Your task to perform on an android device: Go to Reddit.com Image 0: 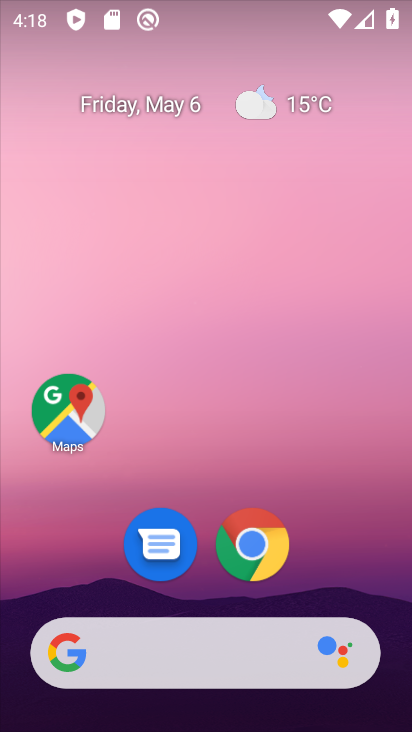
Step 0: drag from (209, 603) to (315, 89)
Your task to perform on an android device: Go to Reddit.com Image 1: 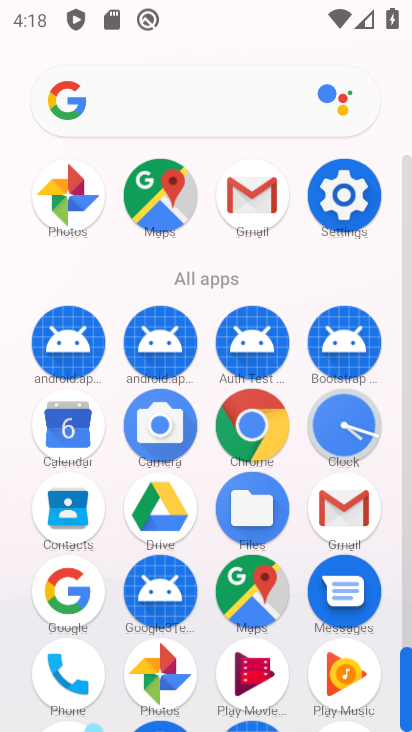
Step 1: drag from (220, 673) to (265, 483)
Your task to perform on an android device: Go to Reddit.com Image 2: 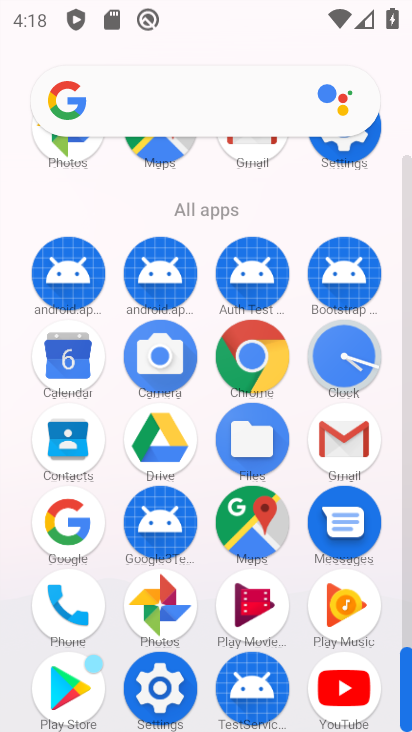
Step 2: click (83, 542)
Your task to perform on an android device: Go to Reddit.com Image 3: 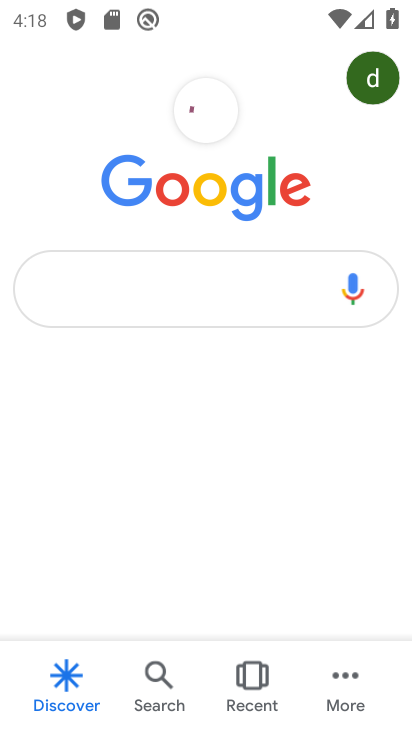
Step 3: click (206, 296)
Your task to perform on an android device: Go to Reddit.com Image 4: 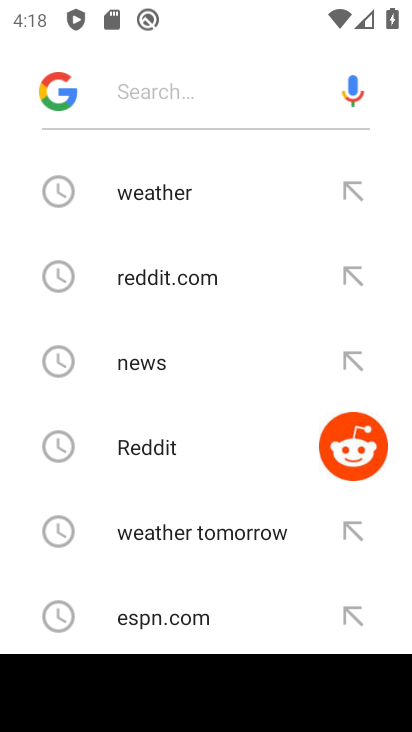
Step 4: type "reddit.com"
Your task to perform on an android device: Go to Reddit.com Image 5: 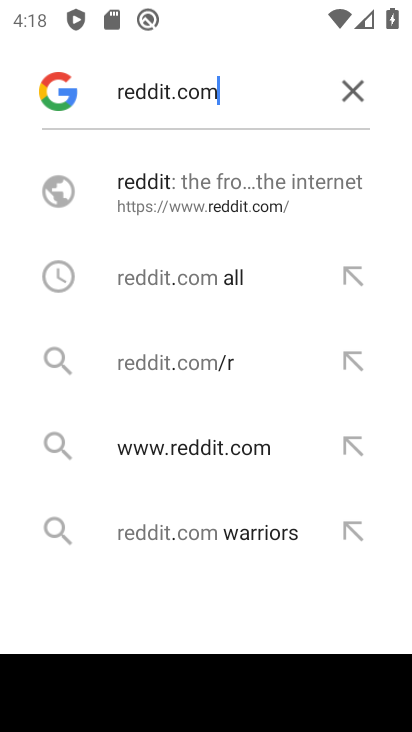
Step 5: click (195, 184)
Your task to perform on an android device: Go to Reddit.com Image 6: 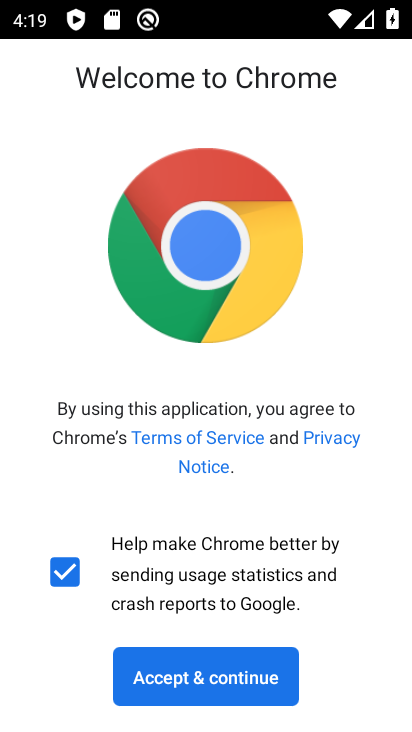
Step 6: click (252, 673)
Your task to perform on an android device: Go to Reddit.com Image 7: 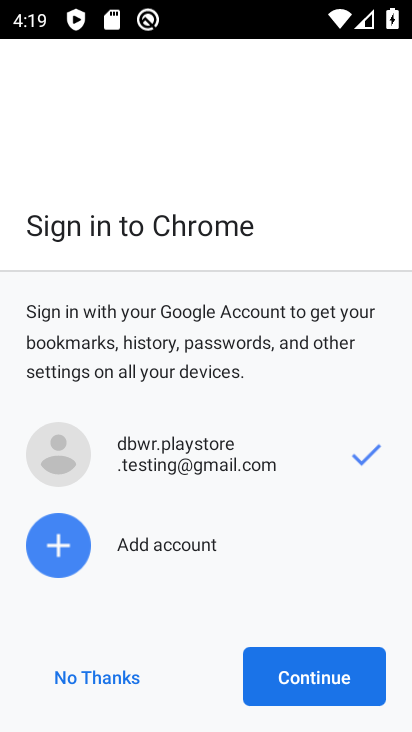
Step 7: click (276, 679)
Your task to perform on an android device: Go to Reddit.com Image 8: 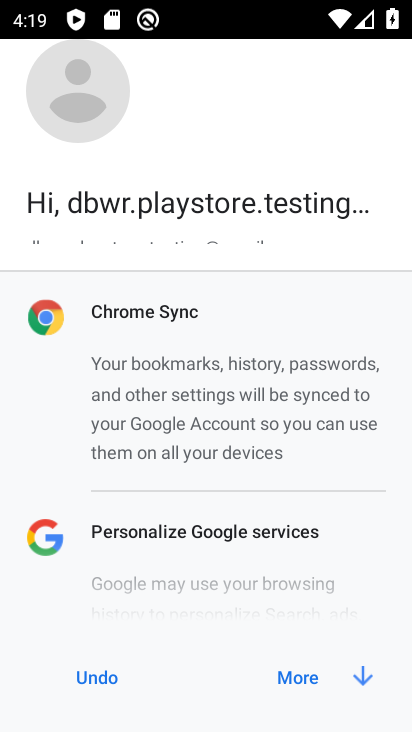
Step 8: click (300, 680)
Your task to perform on an android device: Go to Reddit.com Image 9: 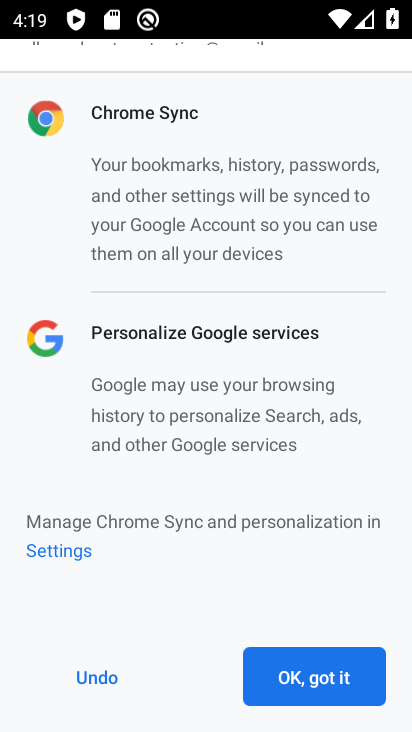
Step 9: click (308, 689)
Your task to perform on an android device: Go to Reddit.com Image 10: 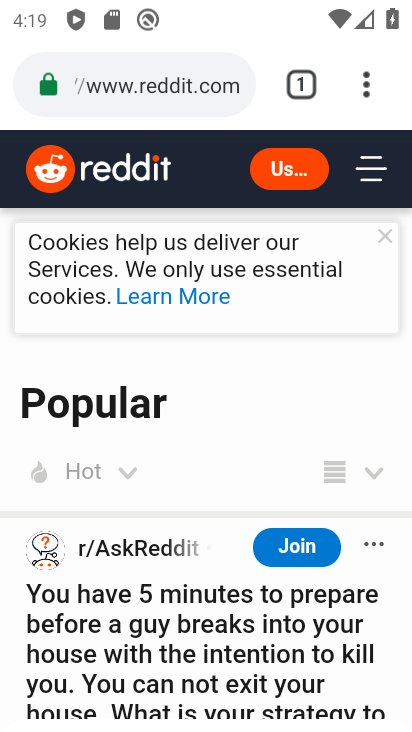
Step 10: task complete